Your task to perform on an android device: open the mobile data screen to see how much data has been used Image 0: 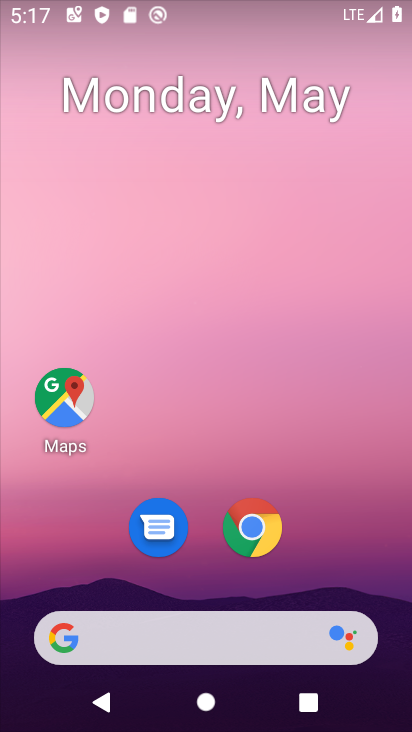
Step 0: drag from (389, 650) to (297, 101)
Your task to perform on an android device: open the mobile data screen to see how much data has been used Image 1: 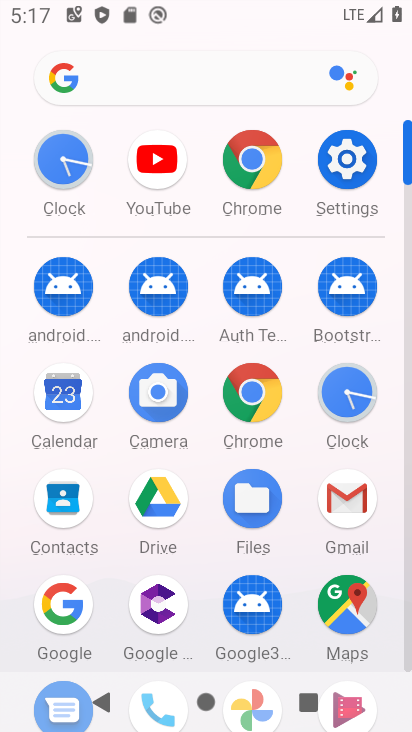
Step 1: click (335, 158)
Your task to perform on an android device: open the mobile data screen to see how much data has been used Image 2: 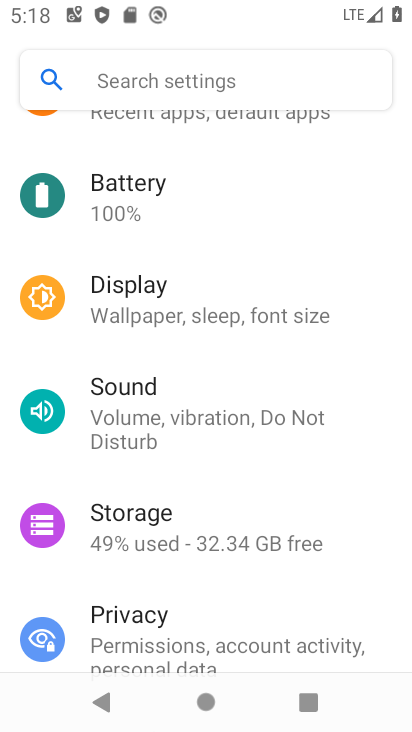
Step 2: drag from (309, 181) to (353, 631)
Your task to perform on an android device: open the mobile data screen to see how much data has been used Image 3: 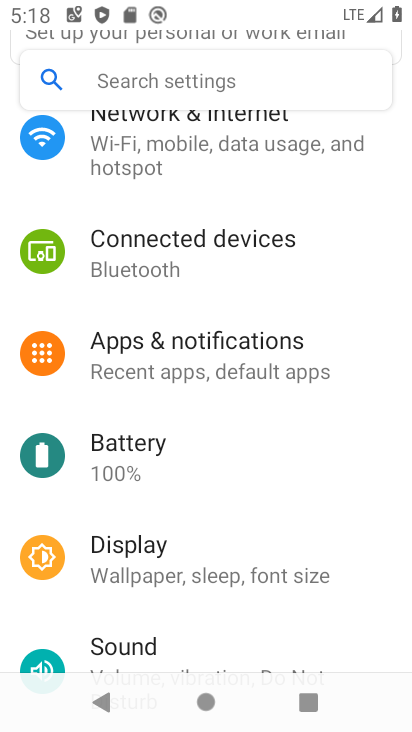
Step 3: drag from (389, 123) to (410, 617)
Your task to perform on an android device: open the mobile data screen to see how much data has been used Image 4: 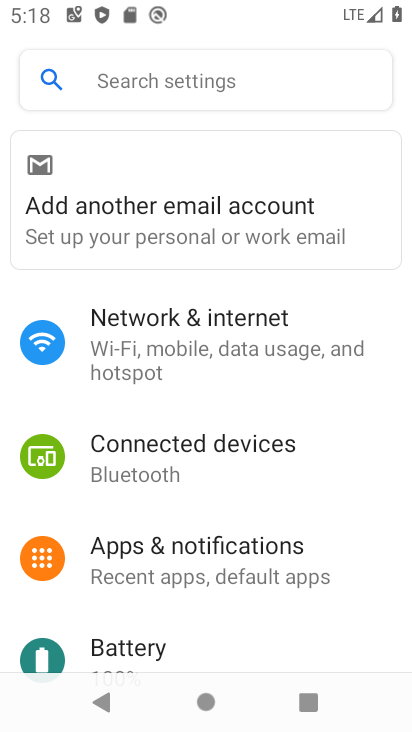
Step 4: click (129, 340)
Your task to perform on an android device: open the mobile data screen to see how much data has been used Image 5: 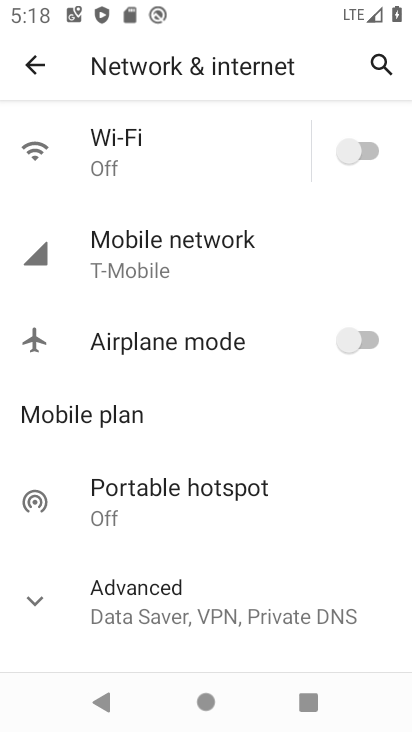
Step 5: click (147, 245)
Your task to perform on an android device: open the mobile data screen to see how much data has been used Image 6: 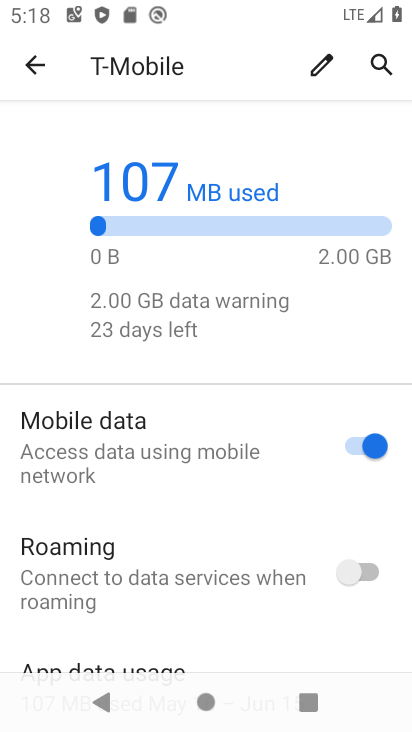
Step 6: task complete